Your task to perform on an android device: Go to location settings Image 0: 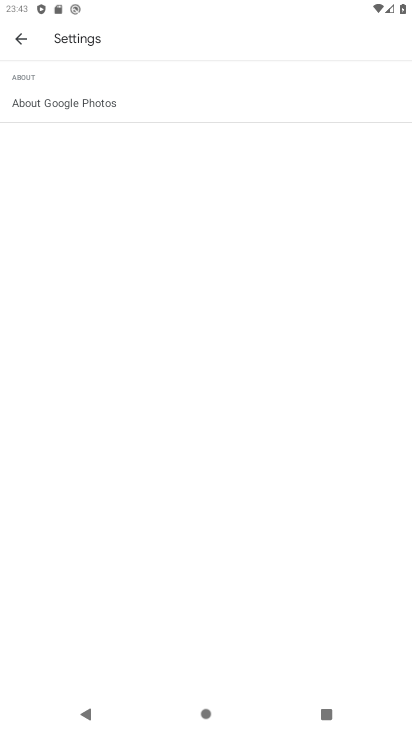
Step 0: drag from (38, 661) to (349, 59)
Your task to perform on an android device: Go to location settings Image 1: 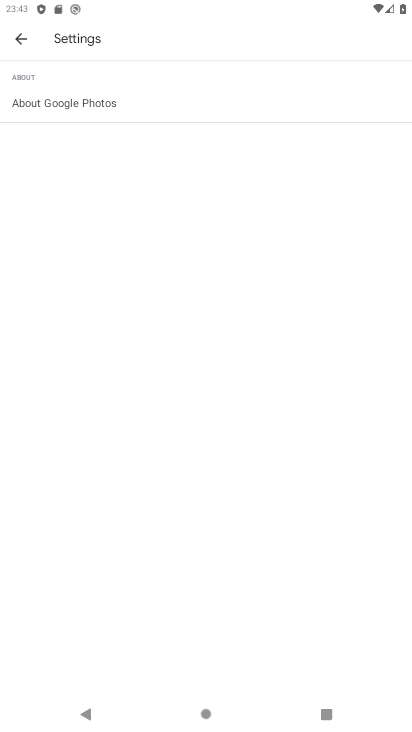
Step 1: press home button
Your task to perform on an android device: Go to location settings Image 2: 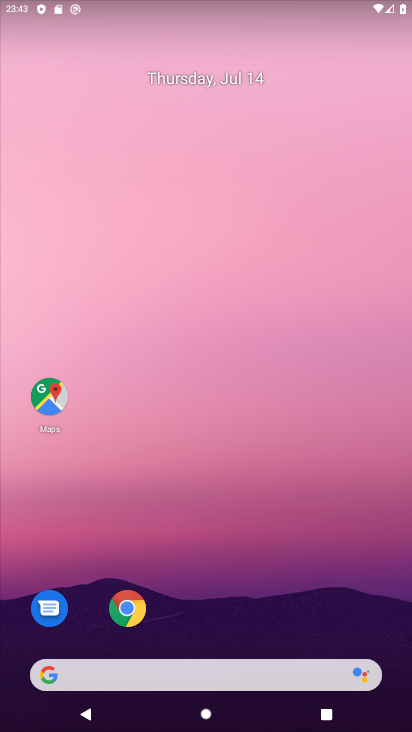
Step 2: drag from (90, 471) to (173, 154)
Your task to perform on an android device: Go to location settings Image 3: 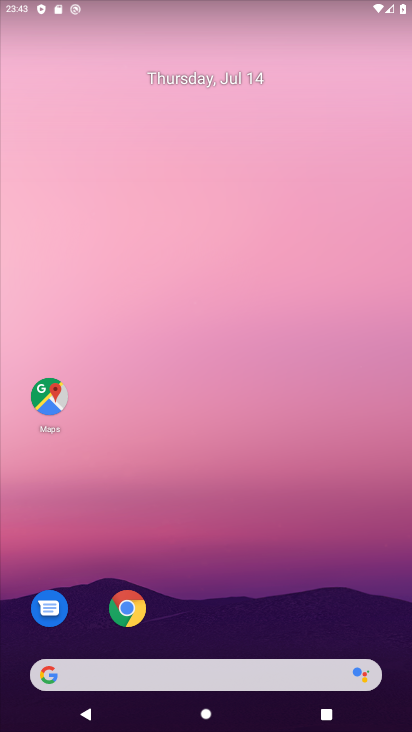
Step 3: drag from (53, 604) to (240, 2)
Your task to perform on an android device: Go to location settings Image 4: 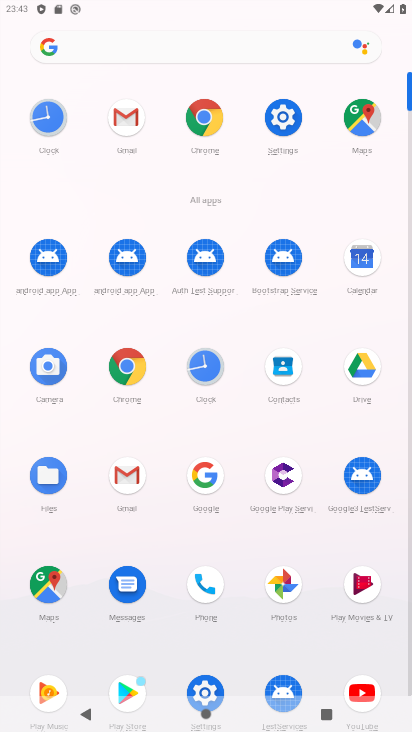
Step 4: click (188, 693)
Your task to perform on an android device: Go to location settings Image 5: 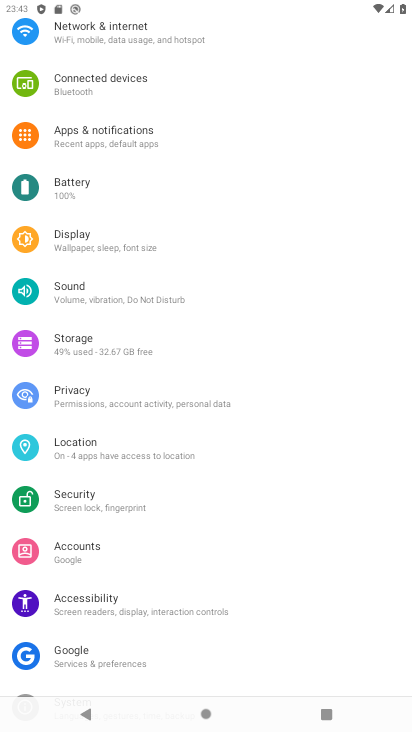
Step 5: click (86, 448)
Your task to perform on an android device: Go to location settings Image 6: 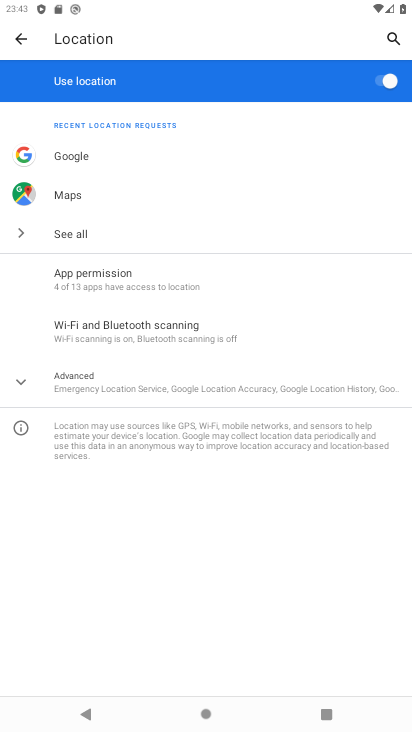
Step 6: click (105, 385)
Your task to perform on an android device: Go to location settings Image 7: 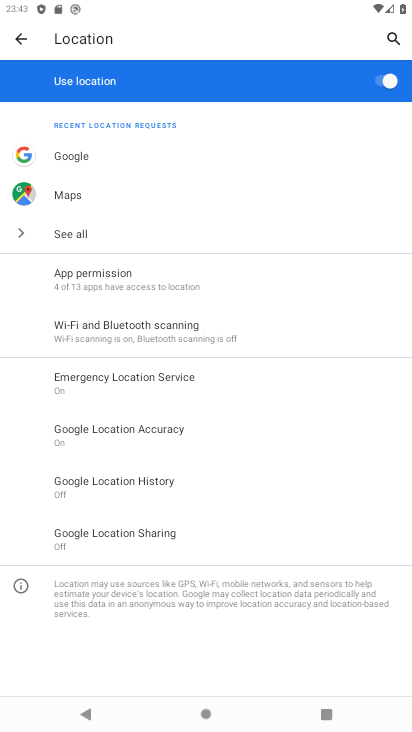
Step 7: task complete